Your task to perform on an android device: Search for vegetarian restaurants on Maps Image 0: 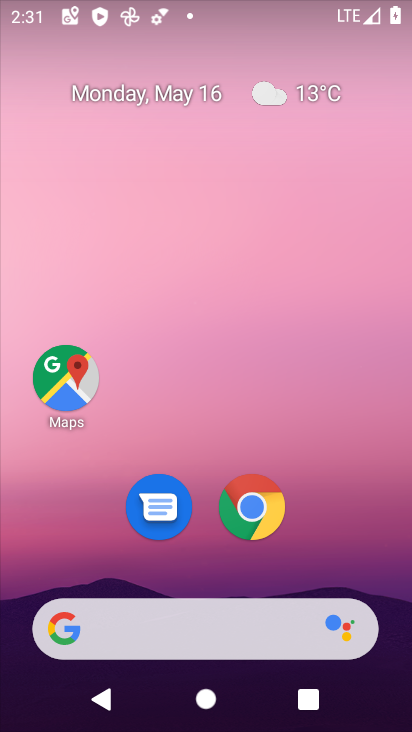
Step 0: click (55, 362)
Your task to perform on an android device: Search for vegetarian restaurants on Maps Image 1: 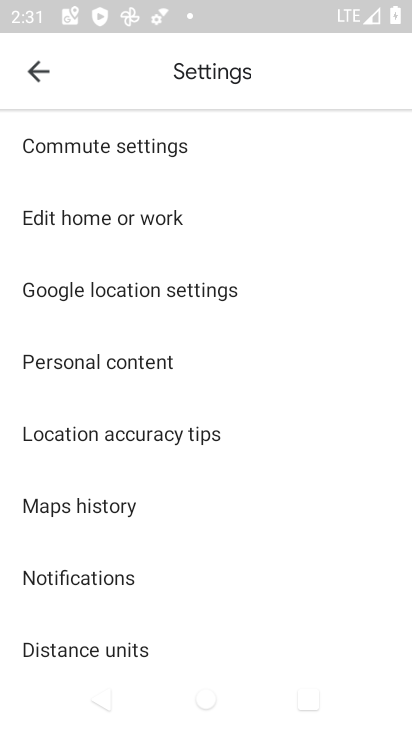
Step 1: click (35, 74)
Your task to perform on an android device: Search for vegetarian restaurants on Maps Image 2: 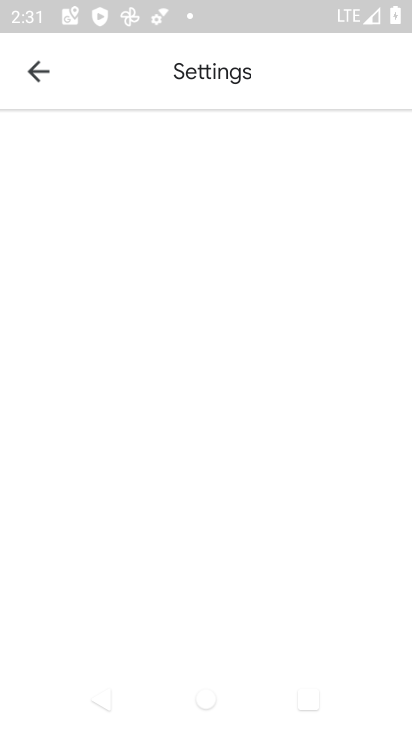
Step 2: click (38, 68)
Your task to perform on an android device: Search for vegetarian restaurants on Maps Image 3: 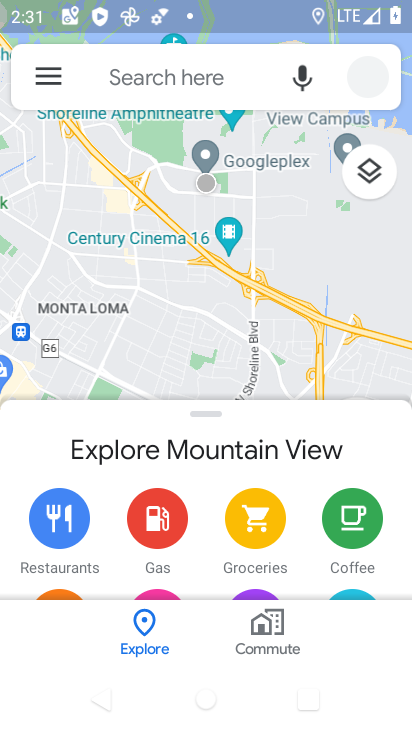
Step 3: click (131, 81)
Your task to perform on an android device: Search for vegetarian restaurants on Maps Image 4: 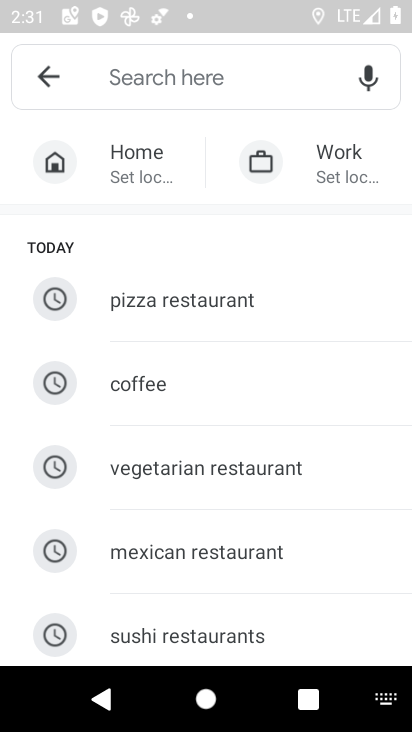
Step 4: click (217, 462)
Your task to perform on an android device: Search for vegetarian restaurants on Maps Image 5: 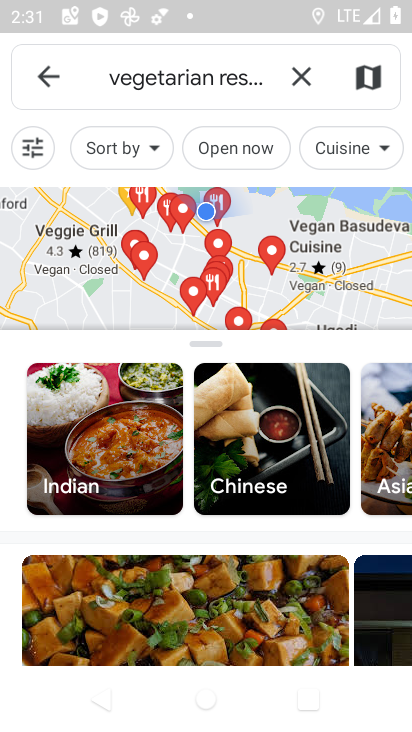
Step 5: task complete